Your task to perform on an android device: turn notification dots on Image 0: 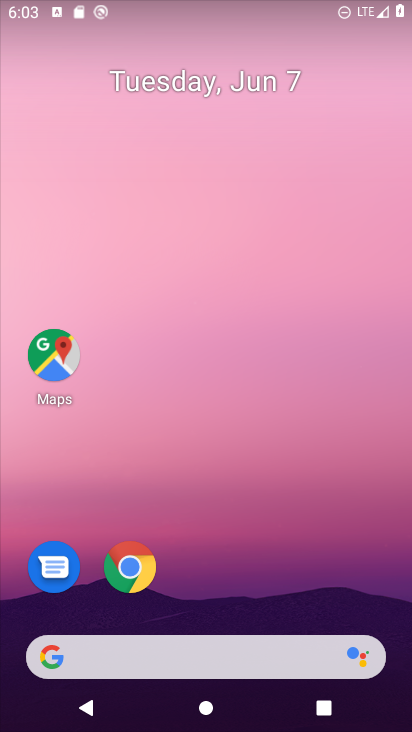
Step 0: drag from (78, 640) to (261, 87)
Your task to perform on an android device: turn notification dots on Image 1: 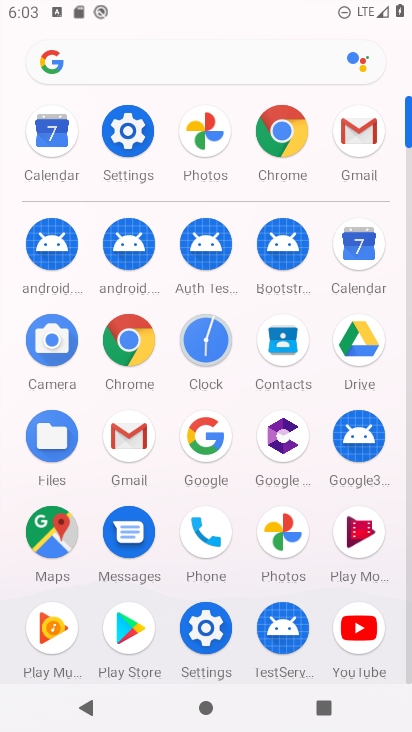
Step 1: click (129, 129)
Your task to perform on an android device: turn notification dots on Image 2: 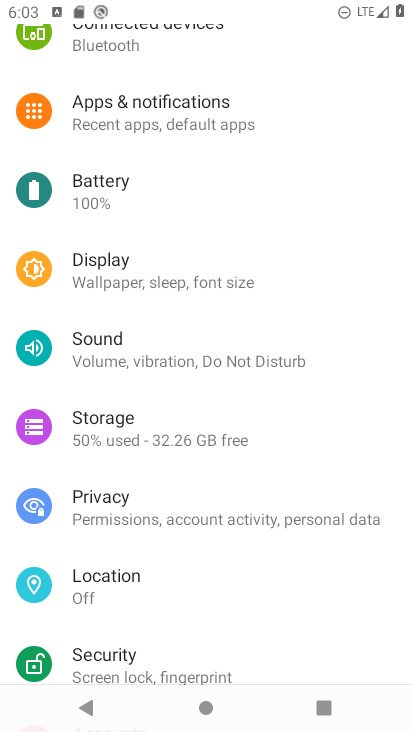
Step 2: click (219, 125)
Your task to perform on an android device: turn notification dots on Image 3: 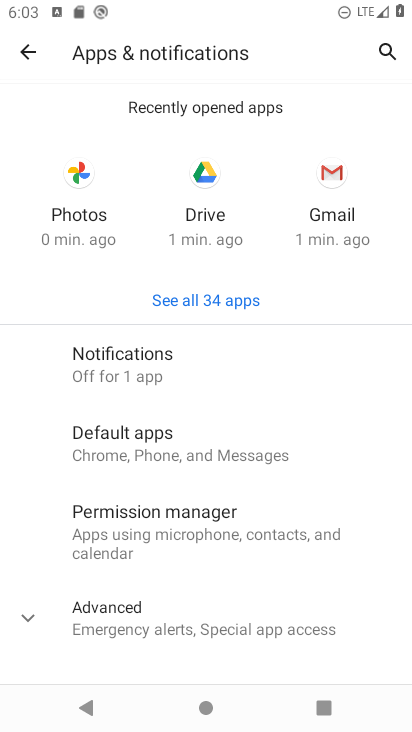
Step 3: click (176, 385)
Your task to perform on an android device: turn notification dots on Image 4: 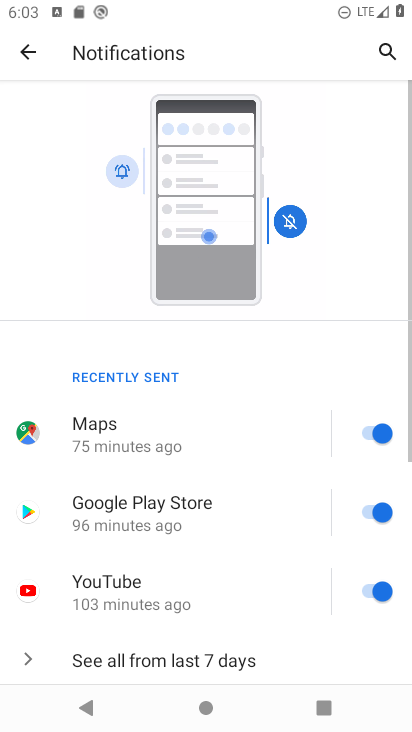
Step 4: drag from (272, 561) to (299, 67)
Your task to perform on an android device: turn notification dots on Image 5: 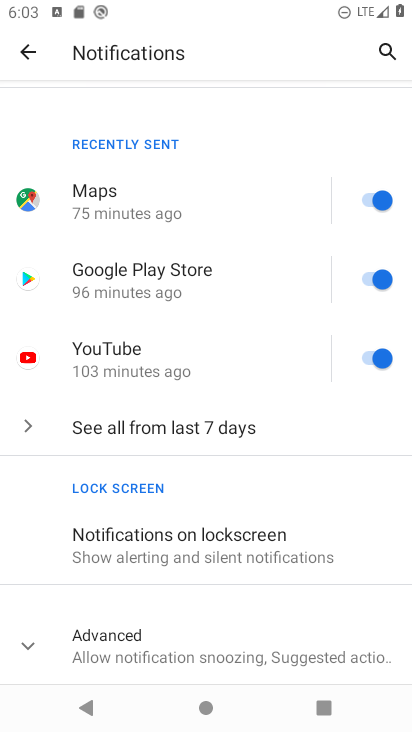
Step 5: click (160, 645)
Your task to perform on an android device: turn notification dots on Image 6: 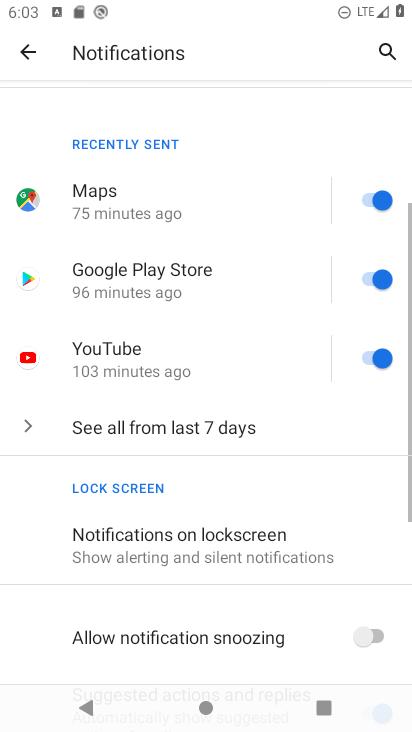
Step 6: drag from (252, 637) to (263, 118)
Your task to perform on an android device: turn notification dots on Image 7: 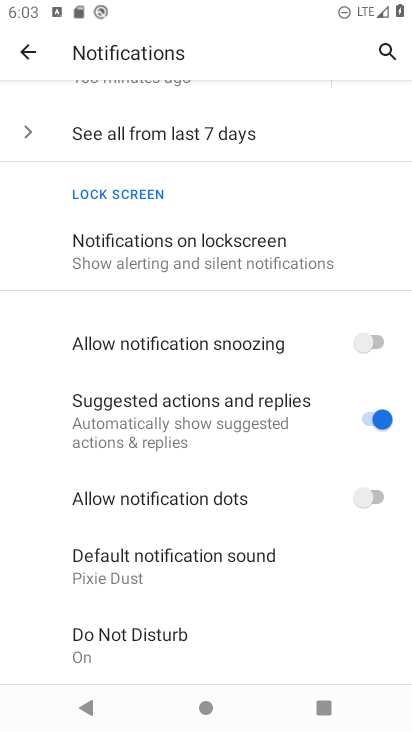
Step 7: click (378, 491)
Your task to perform on an android device: turn notification dots on Image 8: 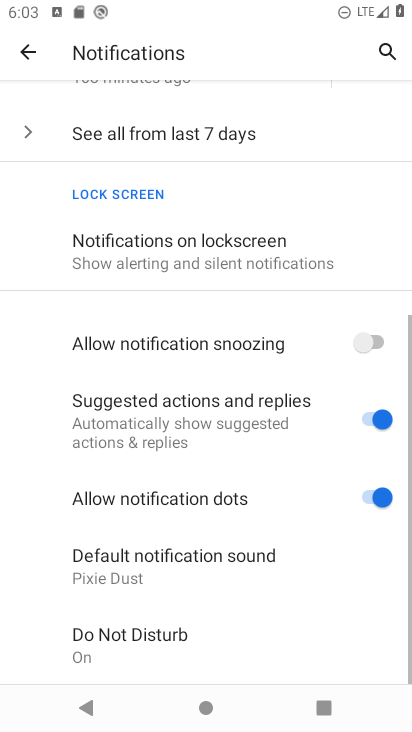
Step 8: task complete